Your task to perform on an android device: clear all cookies in the chrome app Image 0: 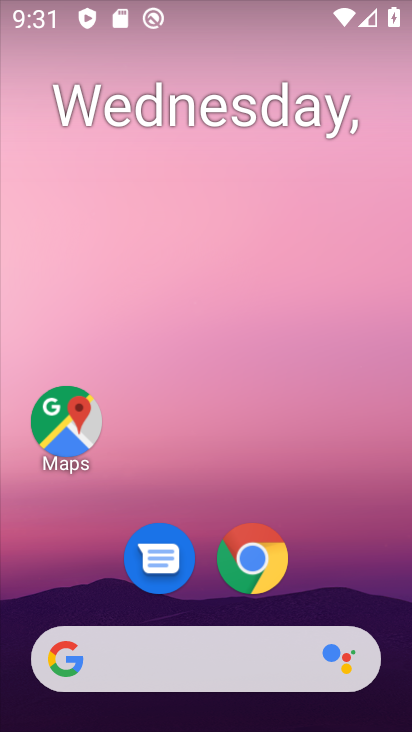
Step 0: click (236, 539)
Your task to perform on an android device: clear all cookies in the chrome app Image 1: 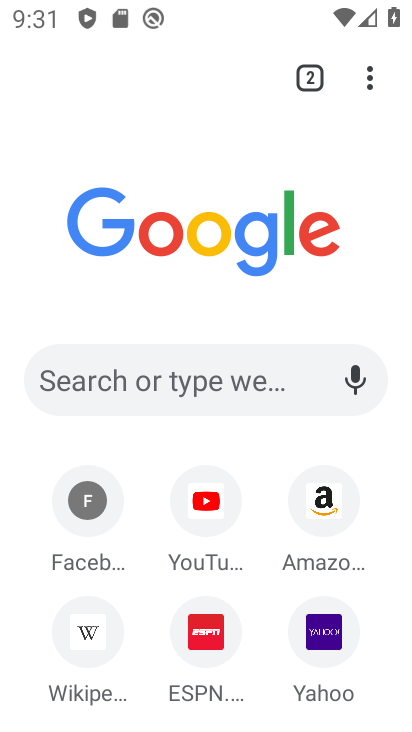
Step 1: click (370, 75)
Your task to perform on an android device: clear all cookies in the chrome app Image 2: 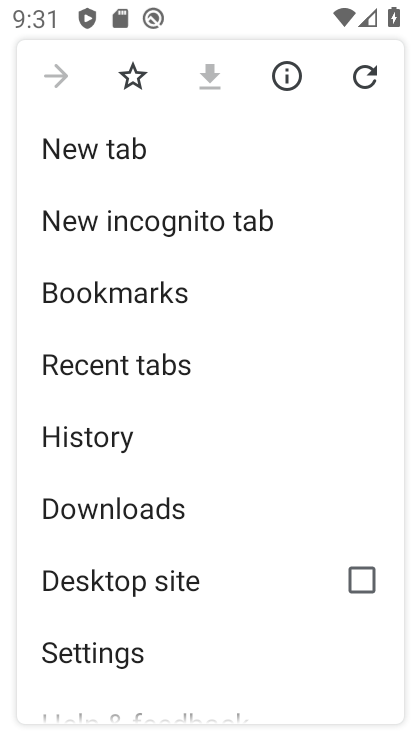
Step 2: click (118, 436)
Your task to perform on an android device: clear all cookies in the chrome app Image 3: 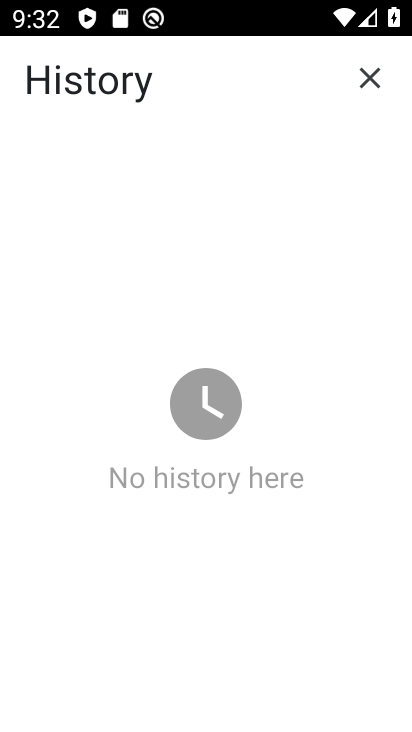
Step 3: task complete